Your task to perform on an android device: What's the weather? Image 0: 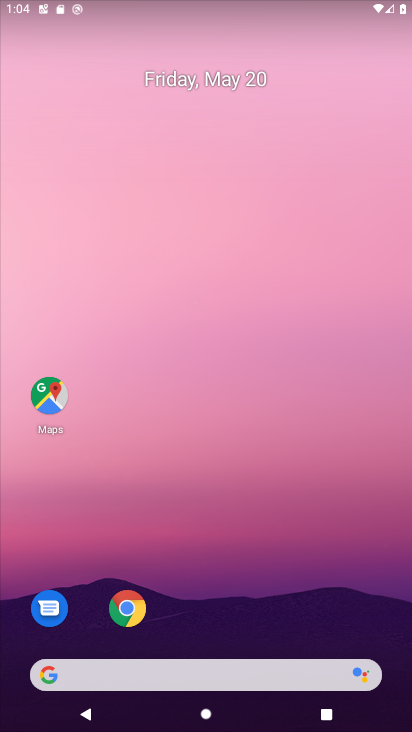
Step 0: drag from (274, 611) to (351, 205)
Your task to perform on an android device: What's the weather? Image 1: 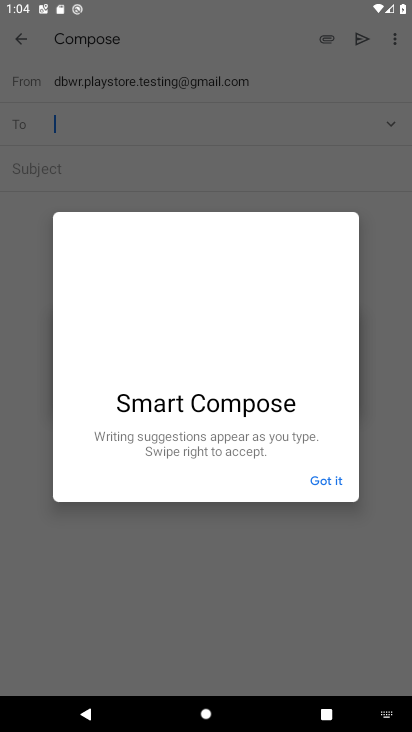
Step 1: press home button
Your task to perform on an android device: What's the weather? Image 2: 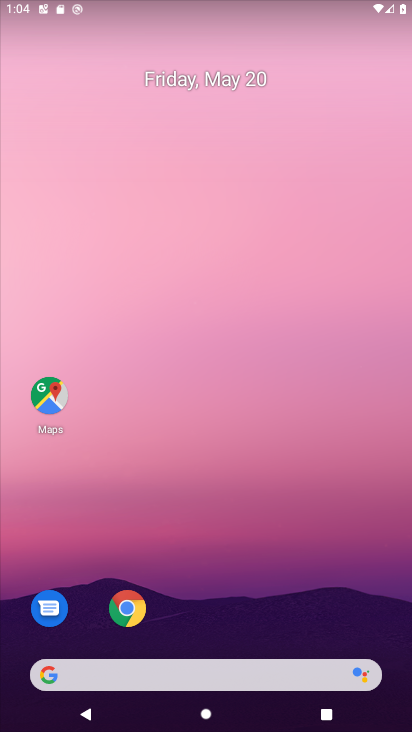
Step 2: drag from (247, 616) to (308, 164)
Your task to perform on an android device: What's the weather? Image 3: 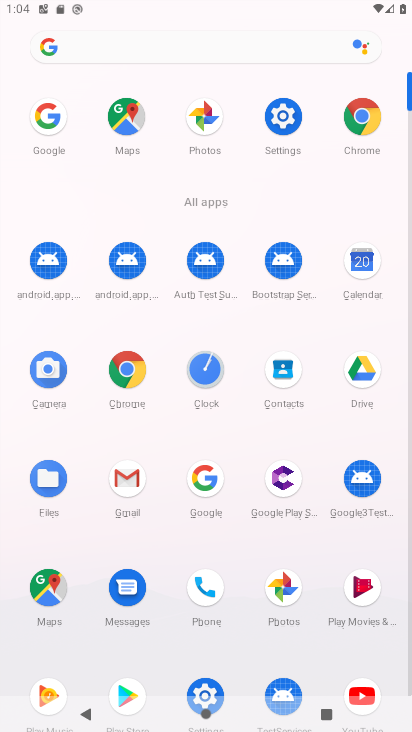
Step 3: click (206, 478)
Your task to perform on an android device: What's the weather? Image 4: 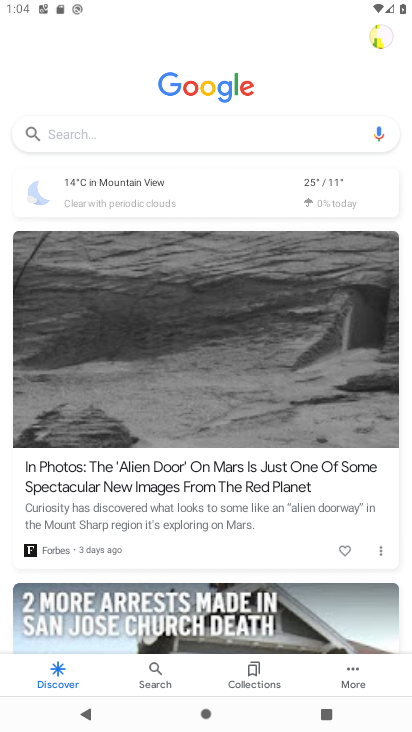
Step 4: click (243, 129)
Your task to perform on an android device: What's the weather? Image 5: 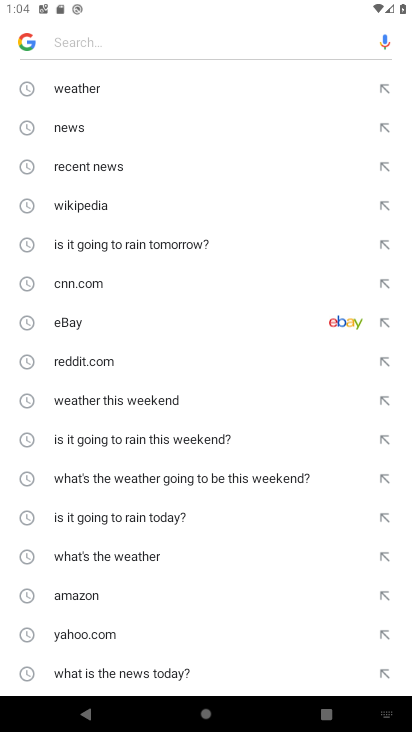
Step 5: click (122, 84)
Your task to perform on an android device: What's the weather? Image 6: 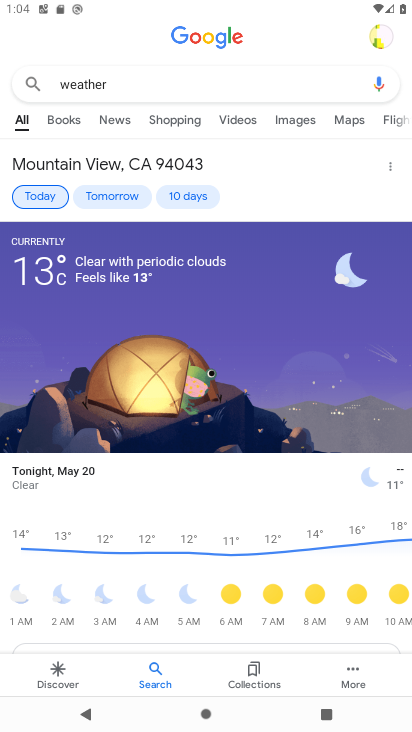
Step 6: task complete